Your task to perform on an android device: Open Google Maps and go to "Timeline" Image 0: 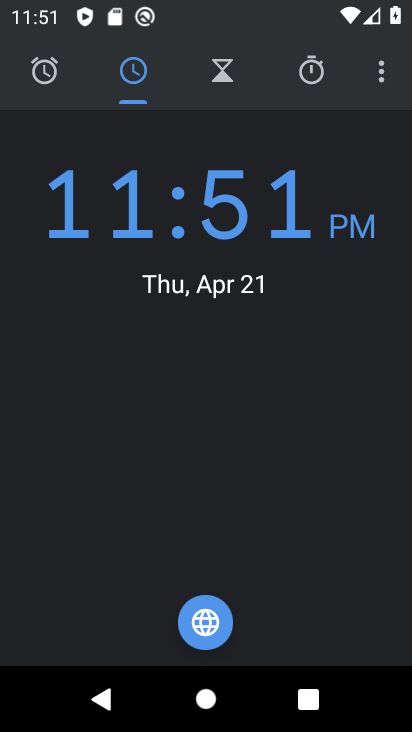
Step 0: press home button
Your task to perform on an android device: Open Google Maps and go to "Timeline" Image 1: 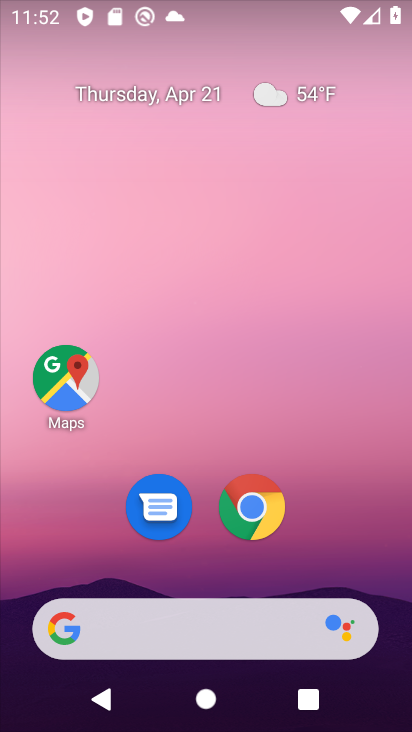
Step 1: click (78, 384)
Your task to perform on an android device: Open Google Maps and go to "Timeline" Image 2: 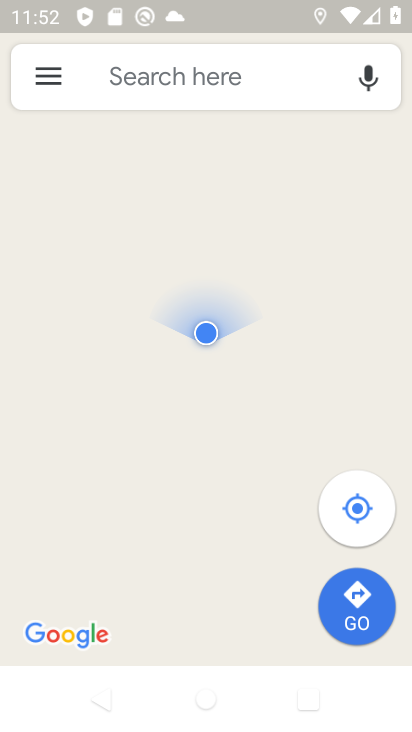
Step 2: click (41, 83)
Your task to perform on an android device: Open Google Maps and go to "Timeline" Image 3: 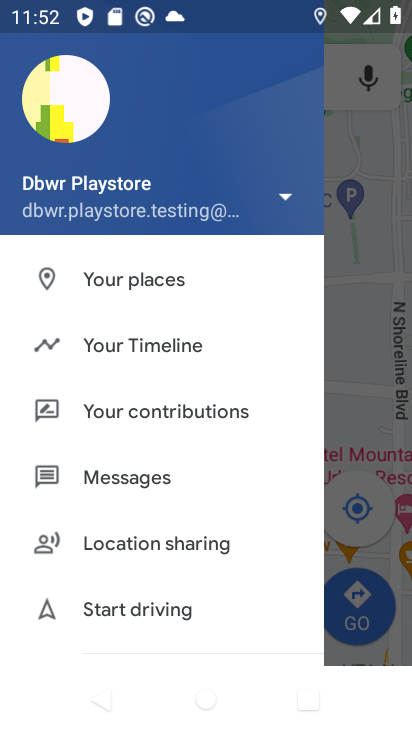
Step 3: click (147, 355)
Your task to perform on an android device: Open Google Maps and go to "Timeline" Image 4: 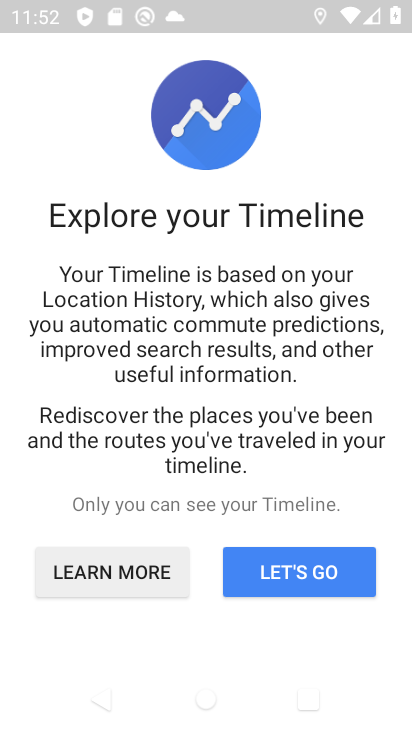
Step 4: click (263, 576)
Your task to perform on an android device: Open Google Maps and go to "Timeline" Image 5: 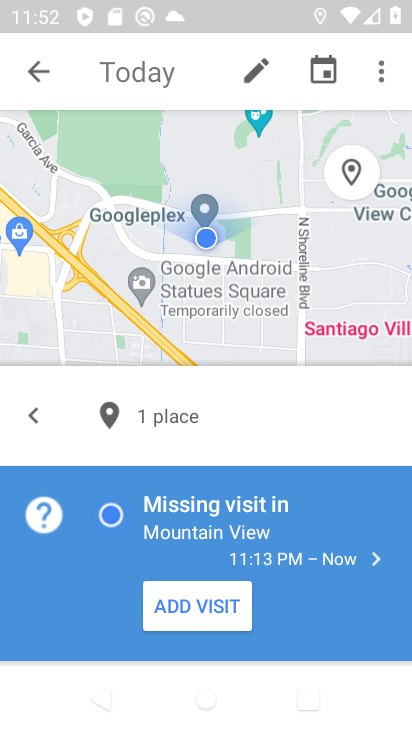
Step 5: task complete